Your task to perform on an android device: What's on my calendar tomorrow? Image 0: 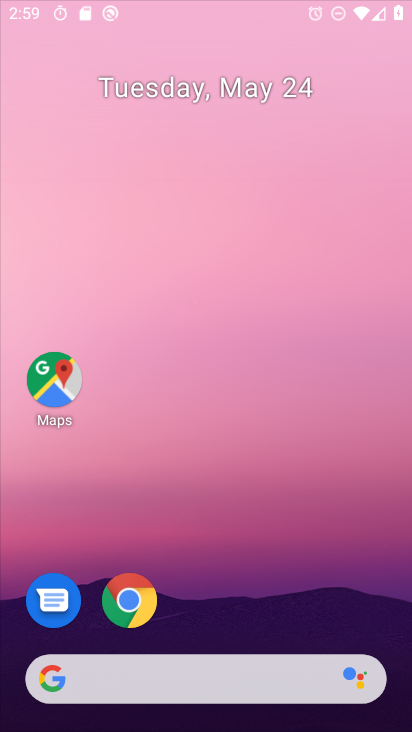
Step 0: click (324, 176)
Your task to perform on an android device: What's on my calendar tomorrow? Image 1: 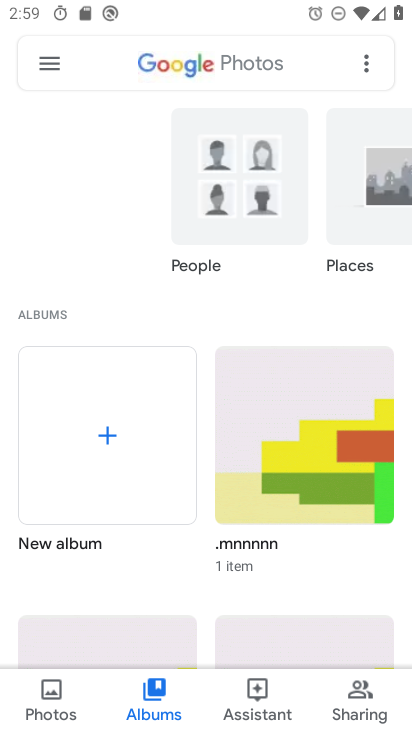
Step 1: press home button
Your task to perform on an android device: What's on my calendar tomorrow? Image 2: 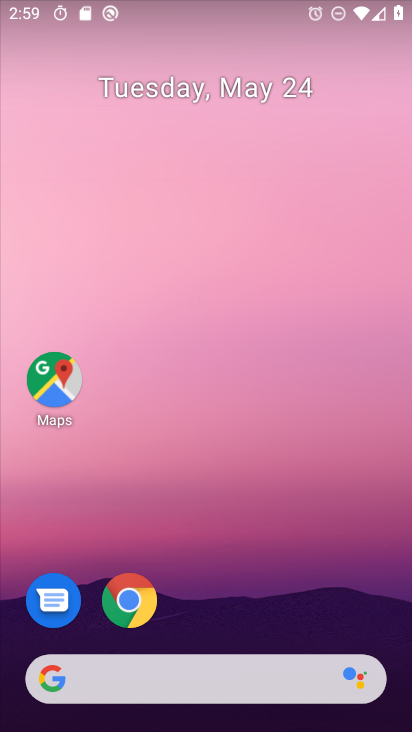
Step 2: drag from (288, 576) to (213, 148)
Your task to perform on an android device: What's on my calendar tomorrow? Image 3: 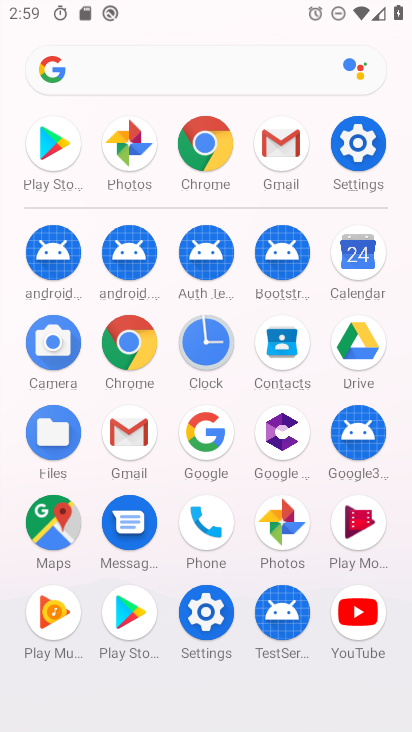
Step 3: click (355, 257)
Your task to perform on an android device: What's on my calendar tomorrow? Image 4: 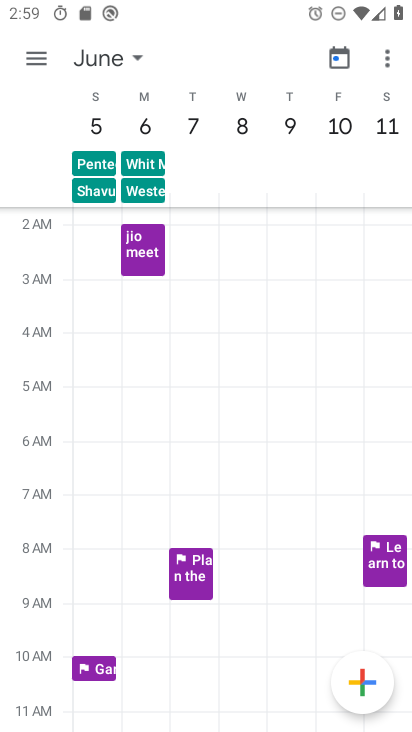
Step 4: click (93, 55)
Your task to perform on an android device: What's on my calendar tomorrow? Image 5: 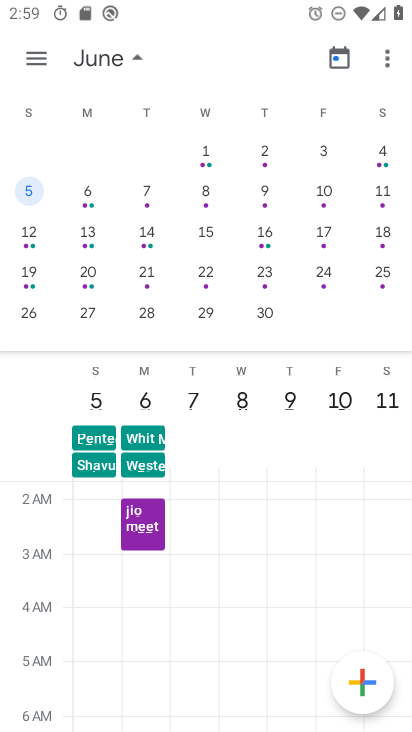
Step 5: drag from (50, 220) to (386, 249)
Your task to perform on an android device: What's on my calendar tomorrow? Image 6: 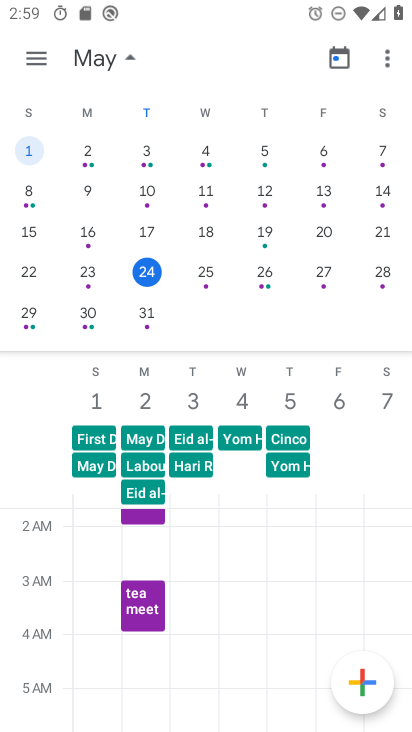
Step 6: click (210, 276)
Your task to perform on an android device: What's on my calendar tomorrow? Image 7: 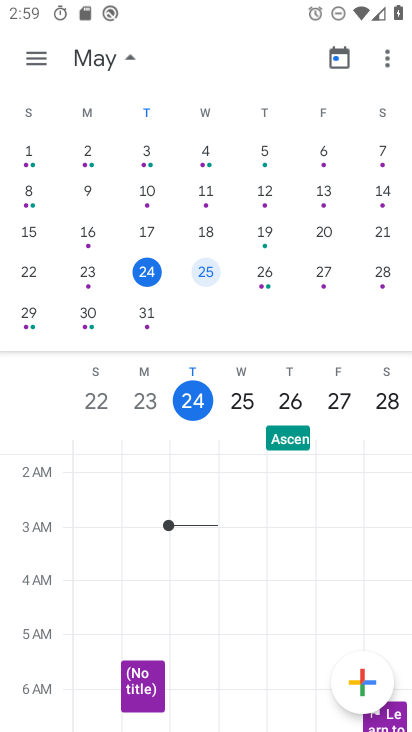
Step 7: task complete